Your task to perform on an android device: toggle wifi Image 0: 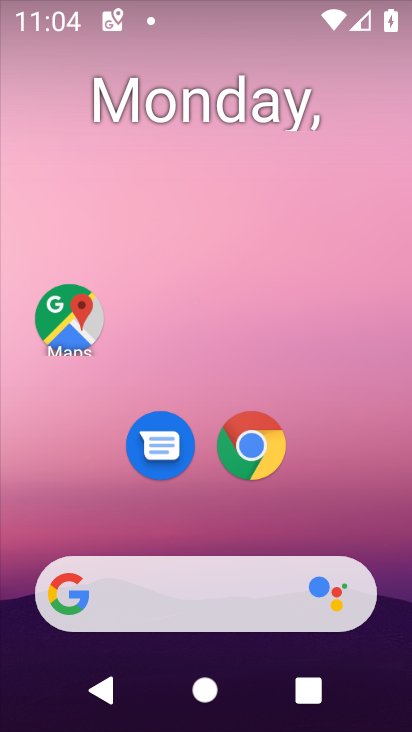
Step 0: drag from (268, 574) to (217, 2)
Your task to perform on an android device: toggle wifi Image 1: 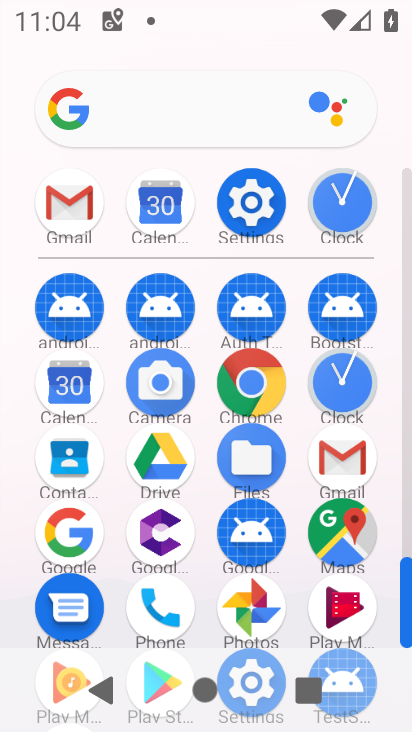
Step 1: click (246, 199)
Your task to perform on an android device: toggle wifi Image 2: 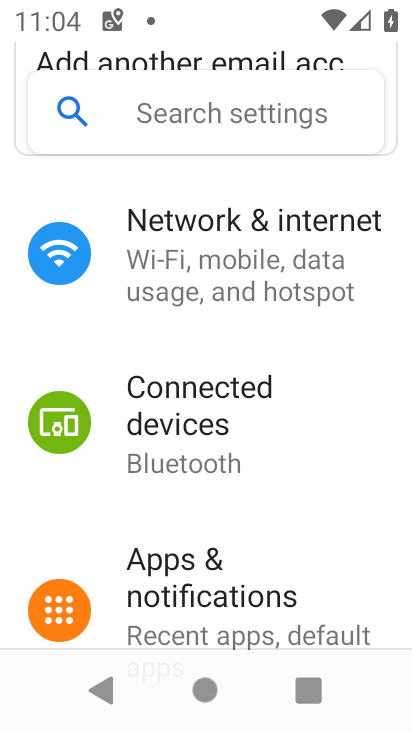
Step 2: click (271, 256)
Your task to perform on an android device: toggle wifi Image 3: 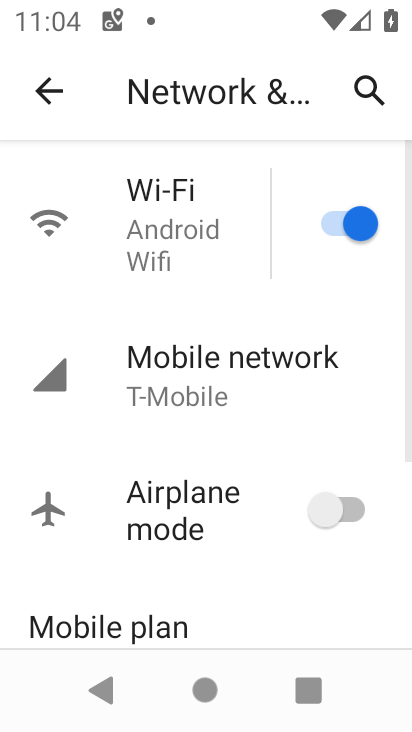
Step 3: click (165, 240)
Your task to perform on an android device: toggle wifi Image 4: 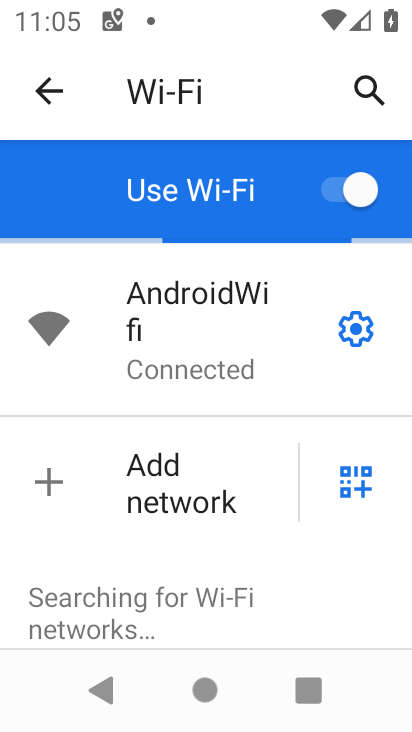
Step 4: click (360, 193)
Your task to perform on an android device: toggle wifi Image 5: 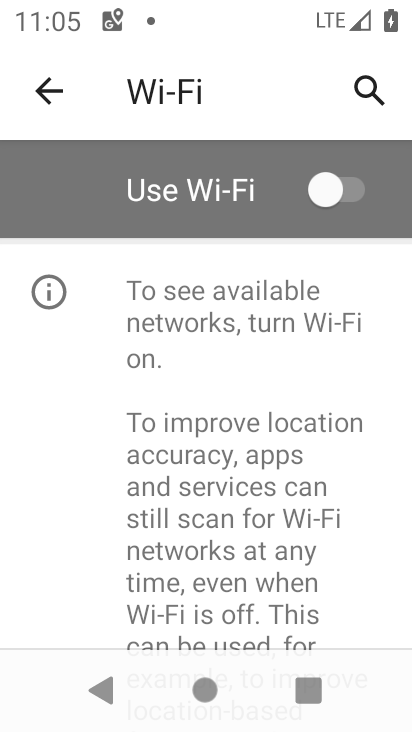
Step 5: task complete